Your task to perform on an android device: Go to Wikipedia Image 0: 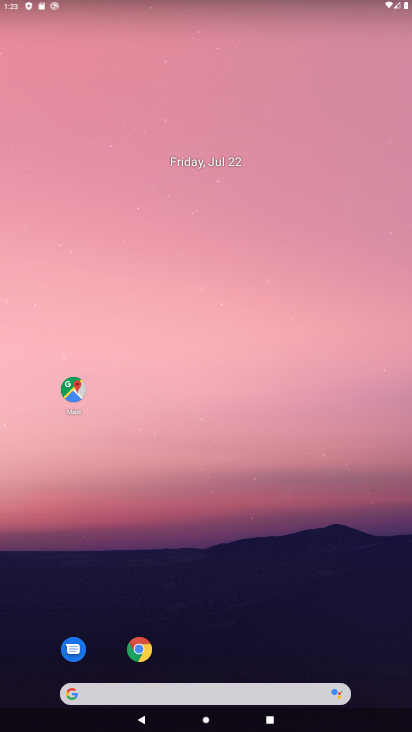
Step 0: click (143, 656)
Your task to perform on an android device: Go to Wikipedia Image 1: 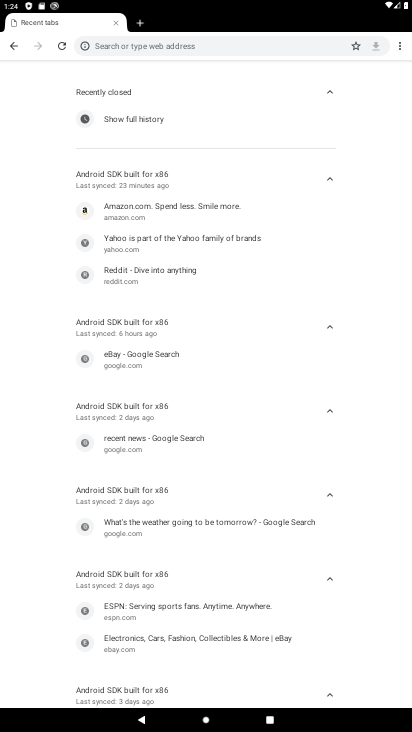
Step 1: click (141, 29)
Your task to perform on an android device: Go to Wikipedia Image 2: 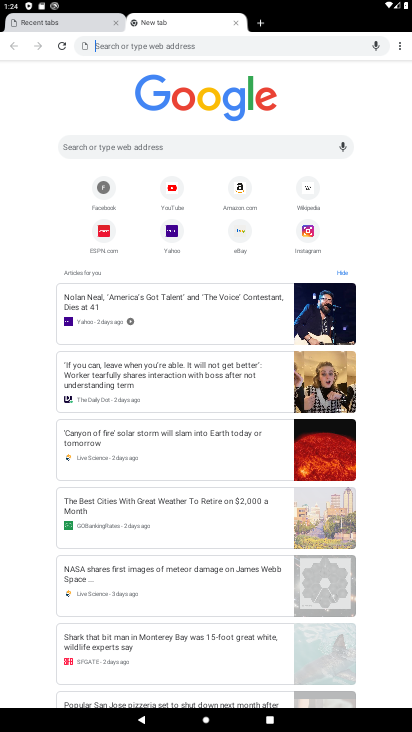
Step 2: click (116, 24)
Your task to perform on an android device: Go to Wikipedia Image 3: 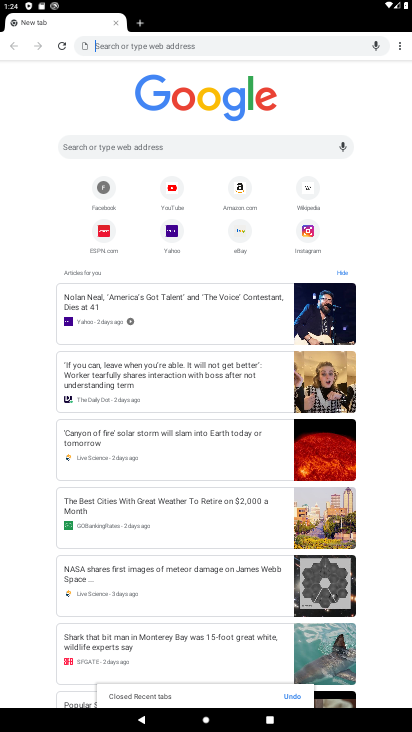
Step 3: click (306, 187)
Your task to perform on an android device: Go to Wikipedia Image 4: 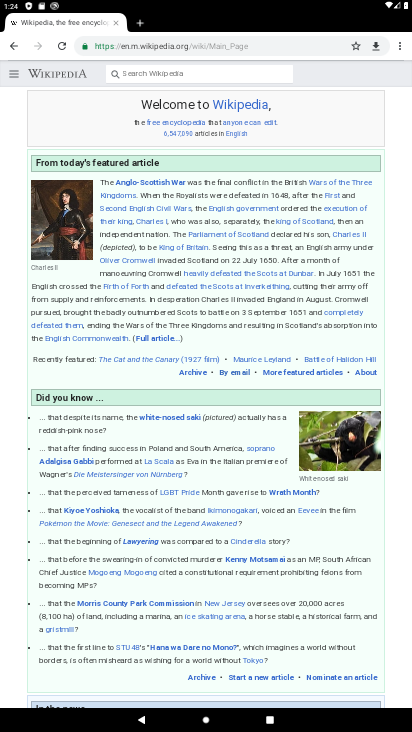
Step 4: task complete